Your task to perform on an android device: Open display settings Image 0: 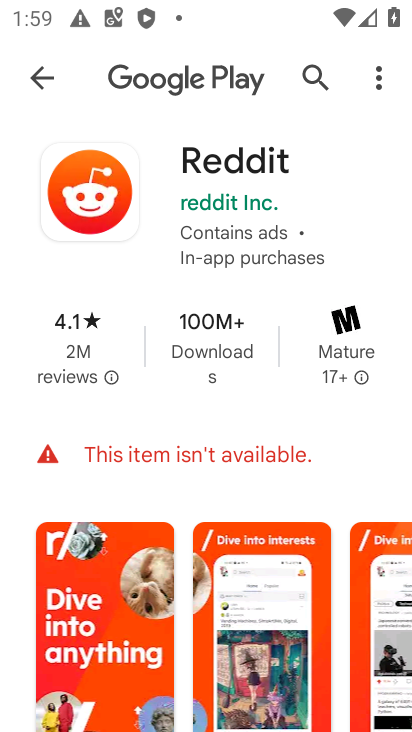
Step 0: press home button
Your task to perform on an android device: Open display settings Image 1: 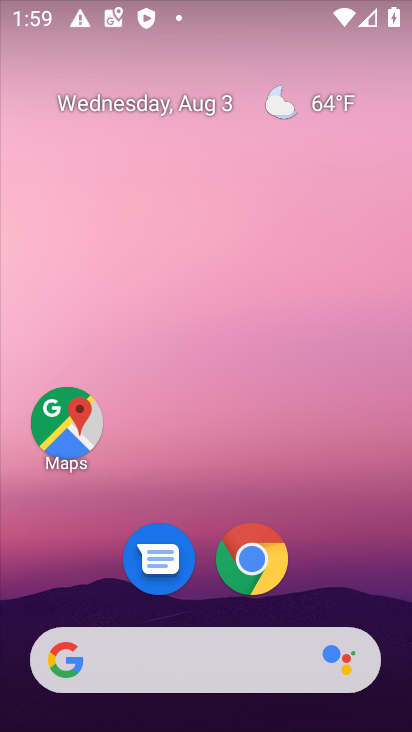
Step 1: drag from (207, 569) to (199, 106)
Your task to perform on an android device: Open display settings Image 2: 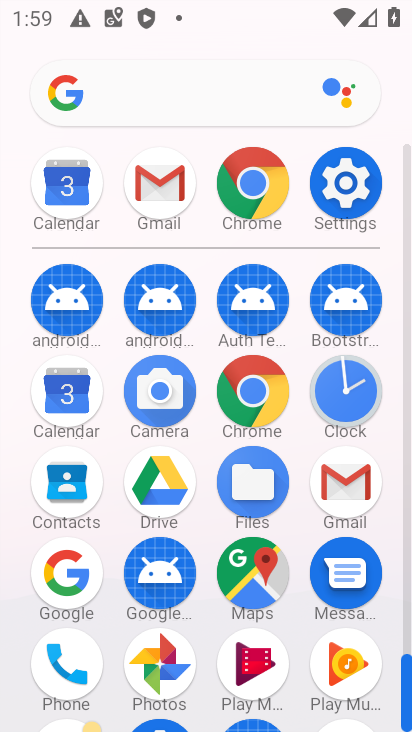
Step 2: click (351, 176)
Your task to perform on an android device: Open display settings Image 3: 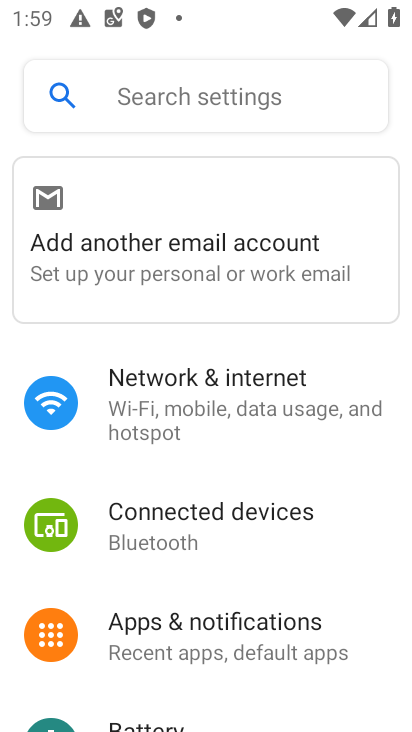
Step 3: drag from (248, 665) to (246, 253)
Your task to perform on an android device: Open display settings Image 4: 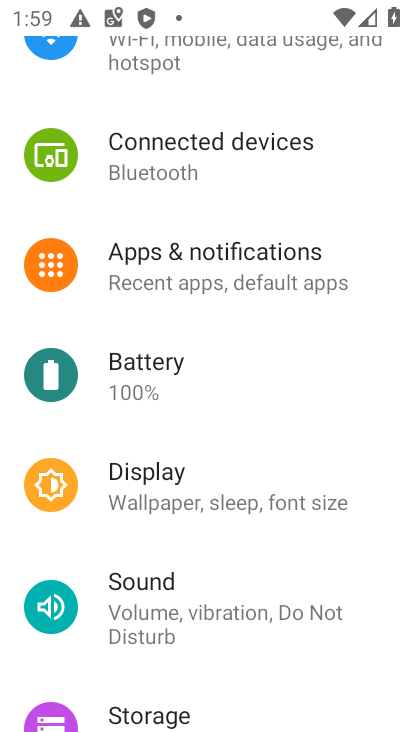
Step 4: drag from (204, 632) to (214, 286)
Your task to perform on an android device: Open display settings Image 5: 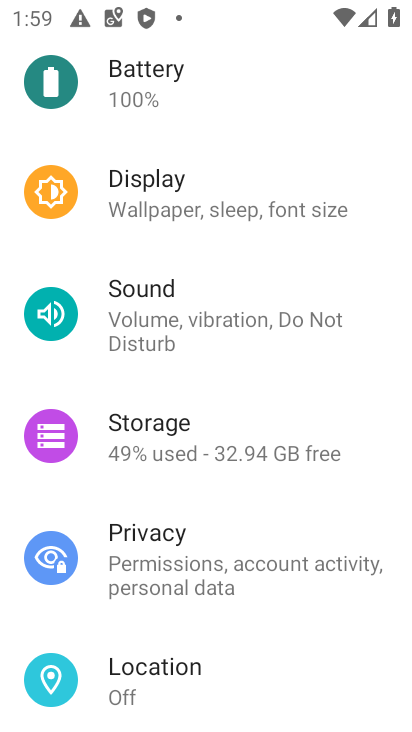
Step 5: click (163, 193)
Your task to perform on an android device: Open display settings Image 6: 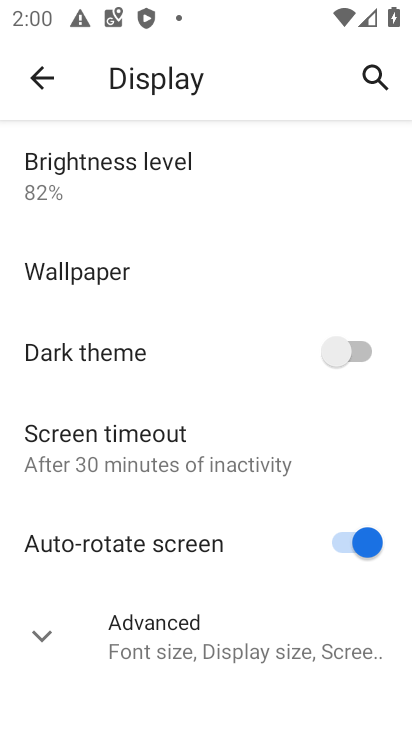
Step 6: task complete